Your task to perform on an android device: Go to Maps Image 0: 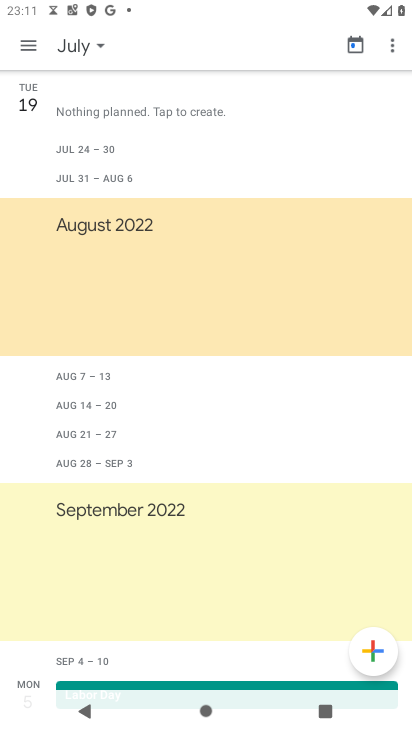
Step 0: press home button
Your task to perform on an android device: Go to Maps Image 1: 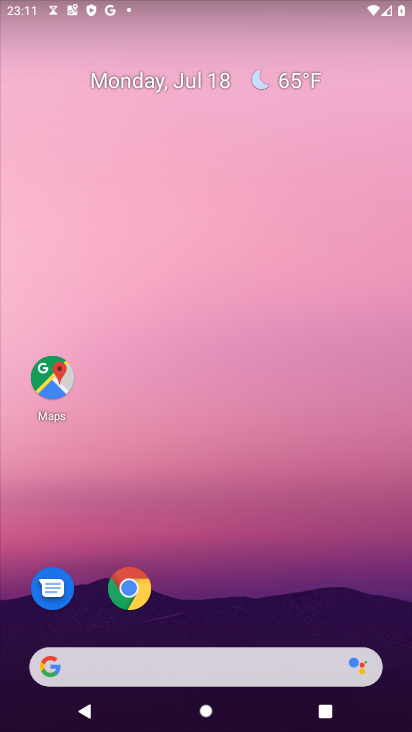
Step 1: click (53, 381)
Your task to perform on an android device: Go to Maps Image 2: 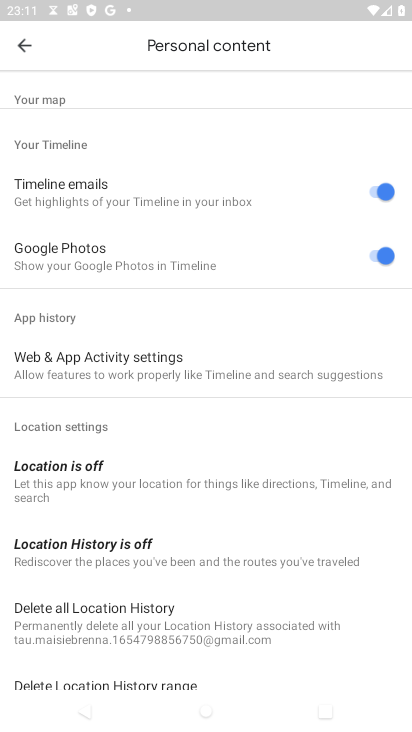
Step 2: task complete